Your task to perform on an android device: Open calendar and show me the fourth week of next month Image 0: 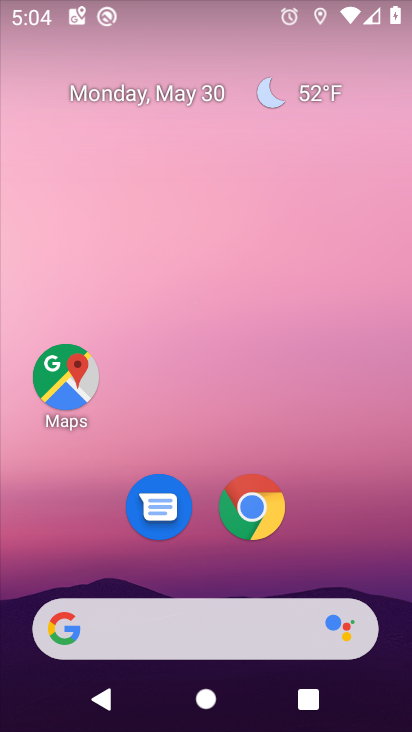
Step 0: press home button
Your task to perform on an android device: Open calendar and show me the fourth week of next month Image 1: 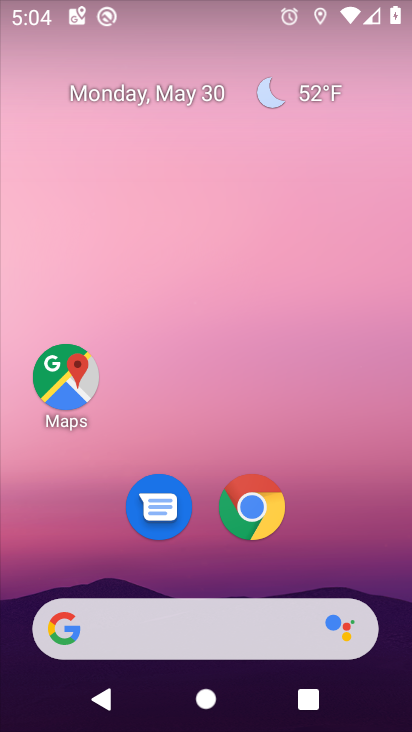
Step 1: drag from (355, 559) to (342, 126)
Your task to perform on an android device: Open calendar and show me the fourth week of next month Image 2: 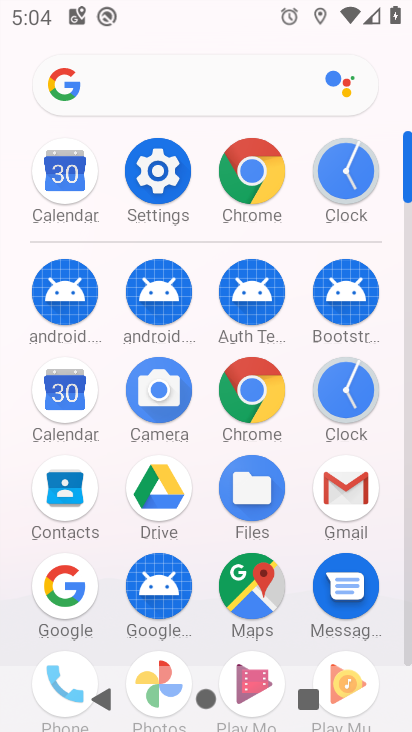
Step 2: click (401, 453)
Your task to perform on an android device: Open calendar and show me the fourth week of next month Image 3: 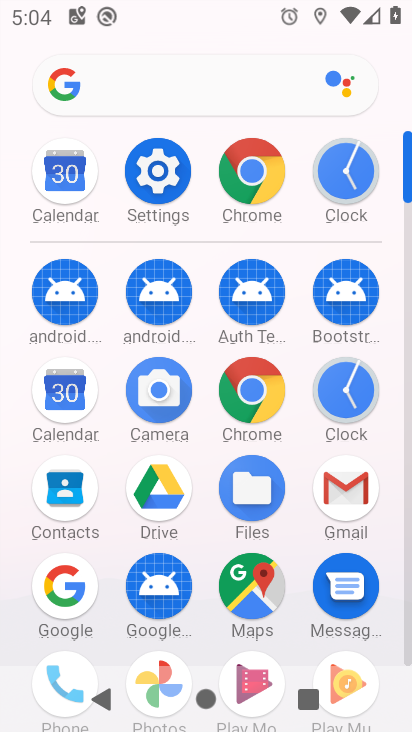
Step 3: click (79, 393)
Your task to perform on an android device: Open calendar and show me the fourth week of next month Image 4: 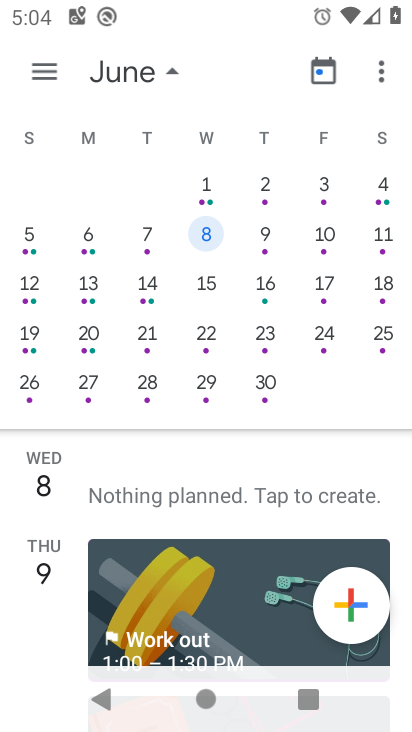
Step 4: click (203, 343)
Your task to perform on an android device: Open calendar and show me the fourth week of next month Image 5: 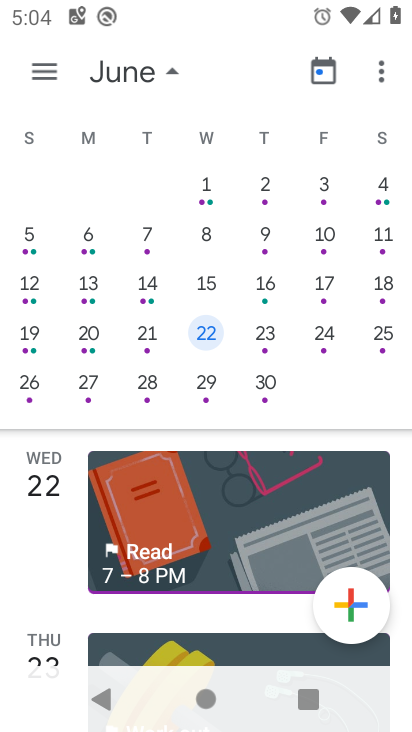
Step 5: task complete